Your task to perform on an android device: Is it going to rain this weekend? Image 0: 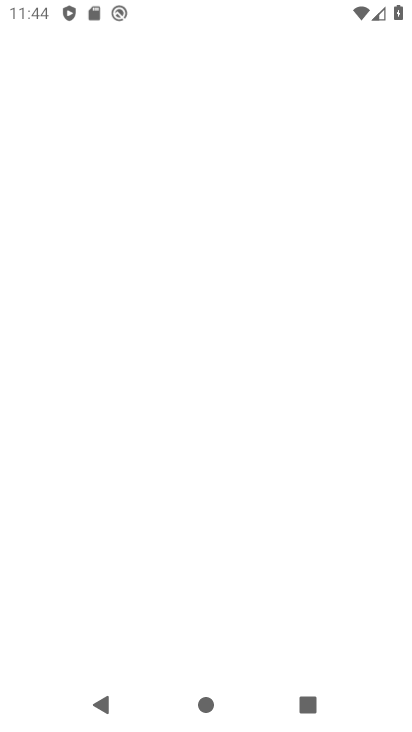
Step 0: press home button
Your task to perform on an android device: Is it going to rain this weekend? Image 1: 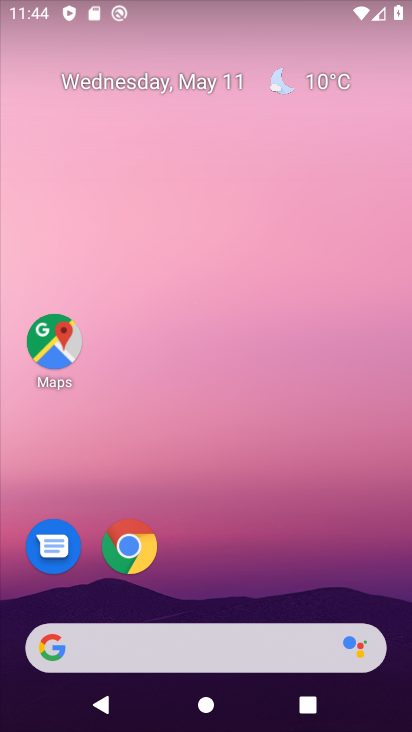
Step 1: click (126, 544)
Your task to perform on an android device: Is it going to rain this weekend? Image 2: 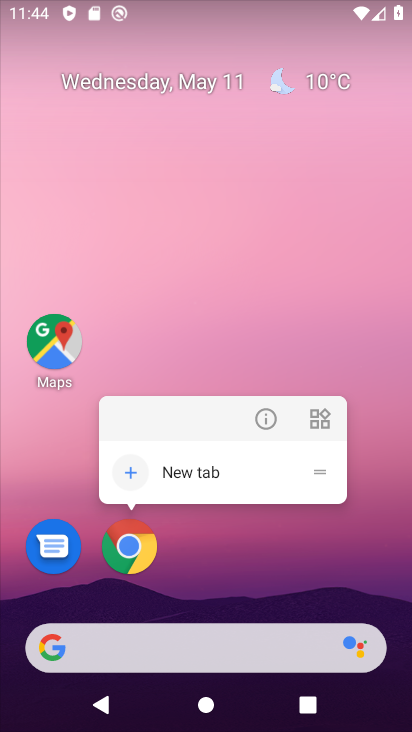
Step 2: click (129, 541)
Your task to perform on an android device: Is it going to rain this weekend? Image 3: 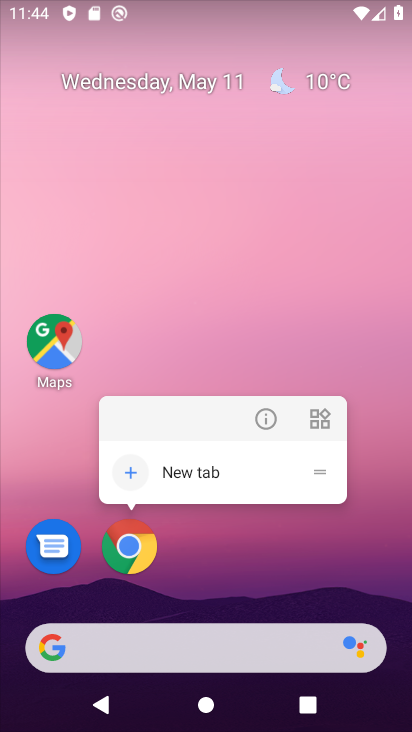
Step 3: click (127, 544)
Your task to perform on an android device: Is it going to rain this weekend? Image 4: 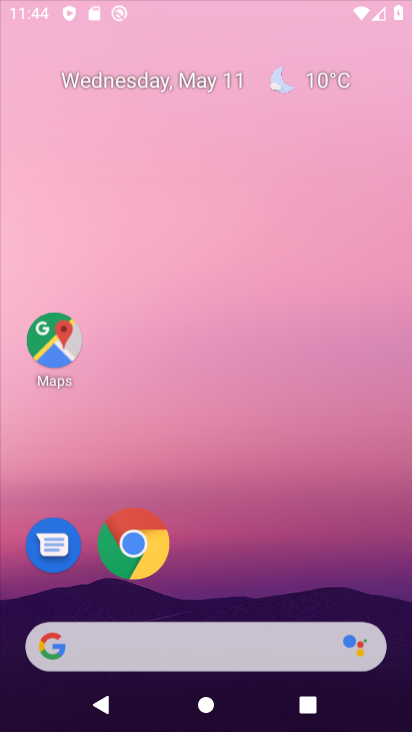
Step 4: click (266, 420)
Your task to perform on an android device: Is it going to rain this weekend? Image 5: 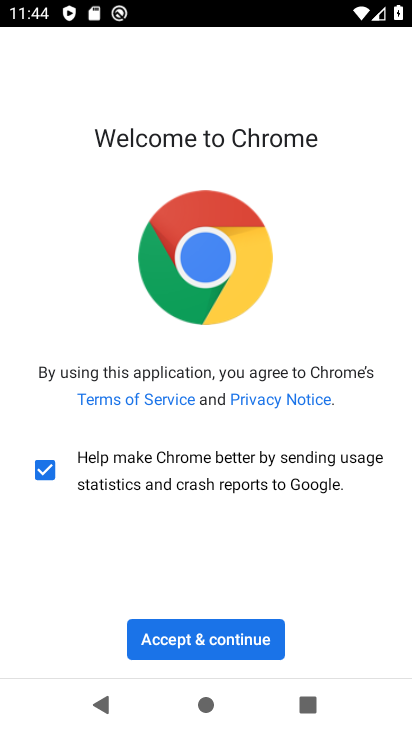
Step 5: click (251, 642)
Your task to perform on an android device: Is it going to rain this weekend? Image 6: 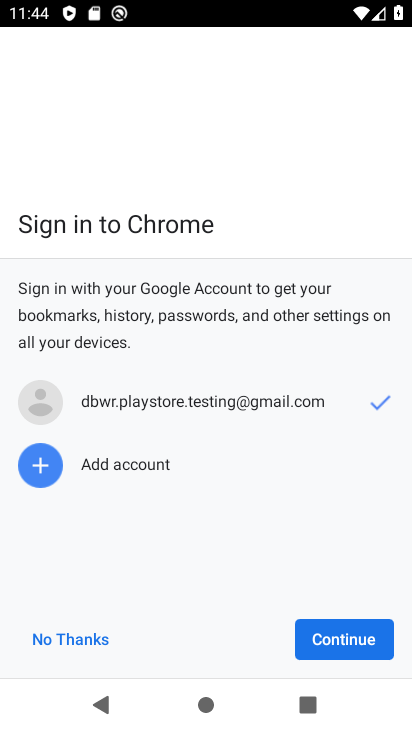
Step 6: click (369, 632)
Your task to perform on an android device: Is it going to rain this weekend? Image 7: 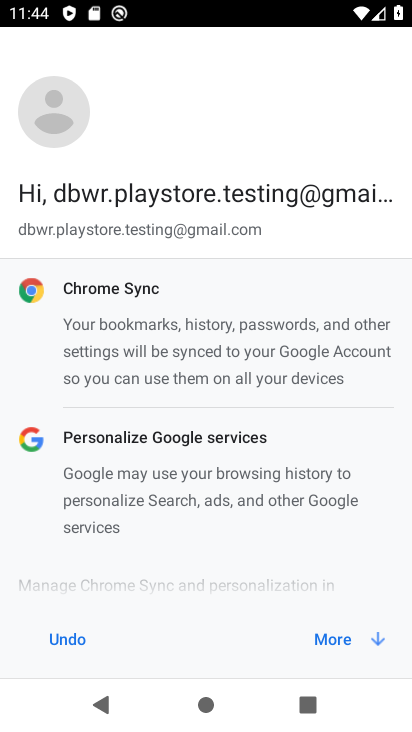
Step 7: click (348, 641)
Your task to perform on an android device: Is it going to rain this weekend? Image 8: 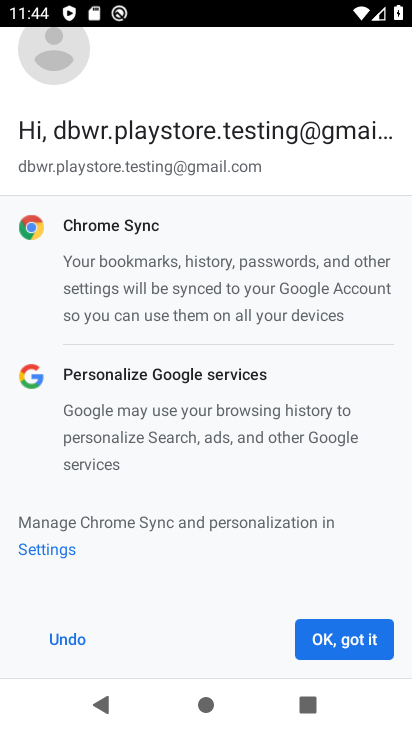
Step 8: click (350, 637)
Your task to perform on an android device: Is it going to rain this weekend? Image 9: 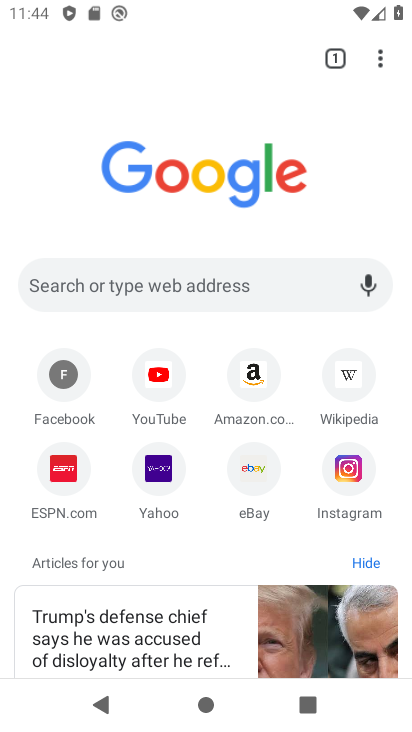
Step 9: click (177, 302)
Your task to perform on an android device: Is it going to rain this weekend? Image 10: 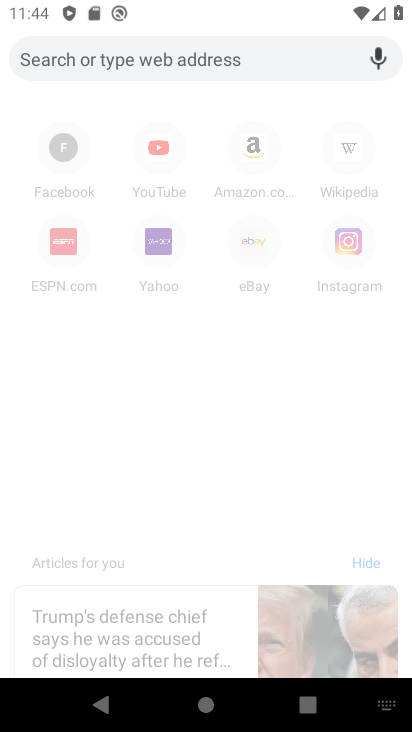
Step 10: type "Is it going to rain this weekend?"
Your task to perform on an android device: Is it going to rain this weekend? Image 11: 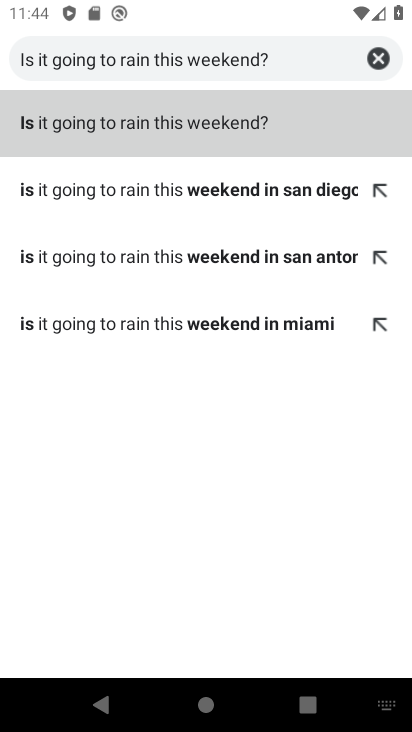
Step 11: click (175, 125)
Your task to perform on an android device: Is it going to rain this weekend? Image 12: 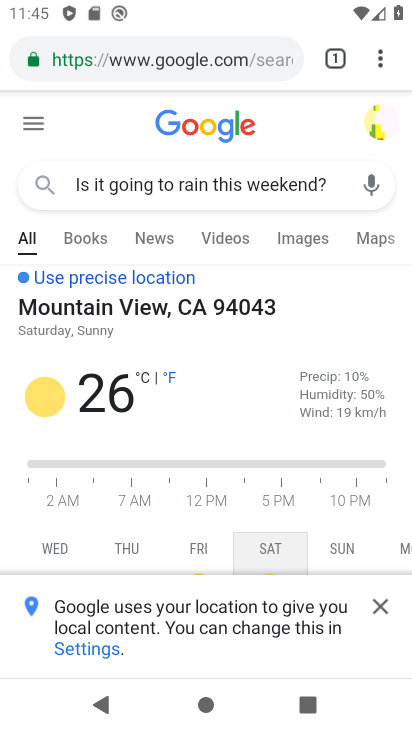
Step 12: task complete